Your task to perform on an android device: Go to wifi settings Image 0: 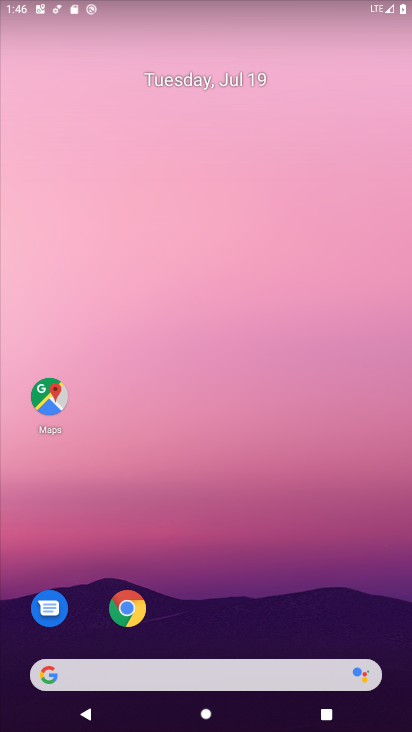
Step 0: drag from (253, 593) to (312, 157)
Your task to perform on an android device: Go to wifi settings Image 1: 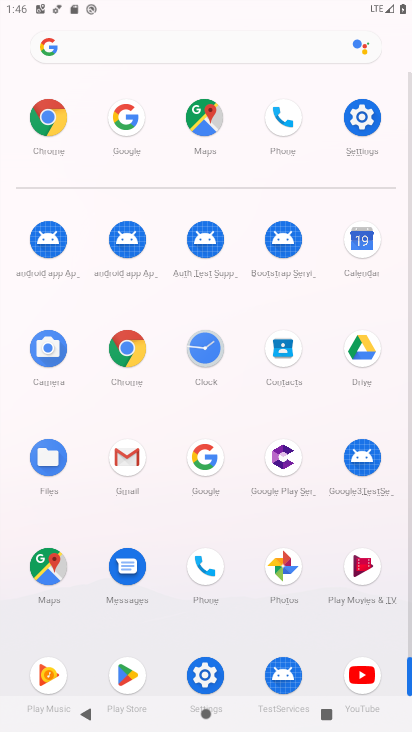
Step 1: click (363, 136)
Your task to perform on an android device: Go to wifi settings Image 2: 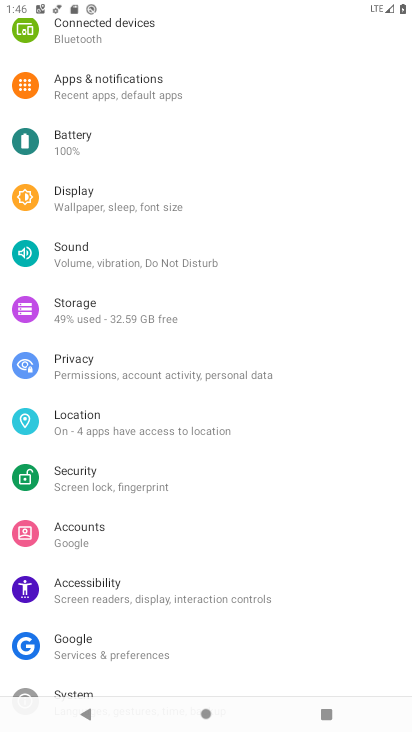
Step 2: drag from (191, 99) to (128, 556)
Your task to perform on an android device: Go to wifi settings Image 3: 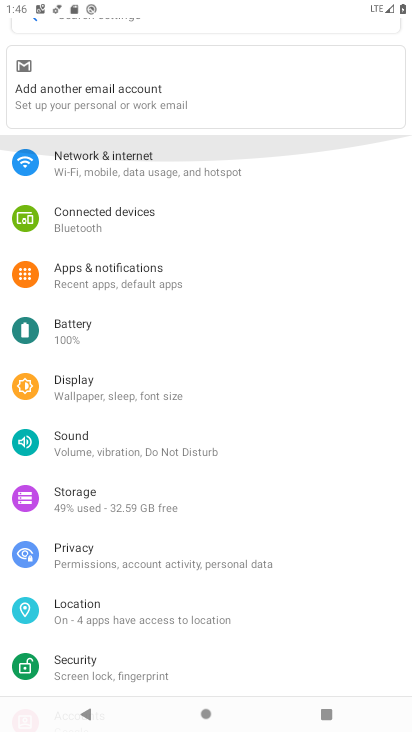
Step 3: click (158, 201)
Your task to perform on an android device: Go to wifi settings Image 4: 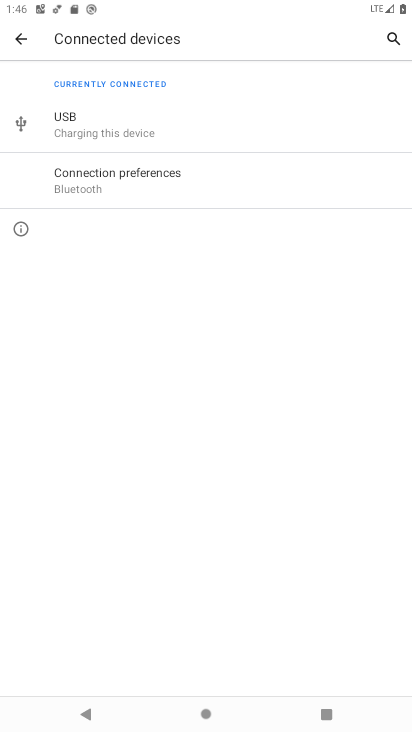
Step 4: press back button
Your task to perform on an android device: Go to wifi settings Image 5: 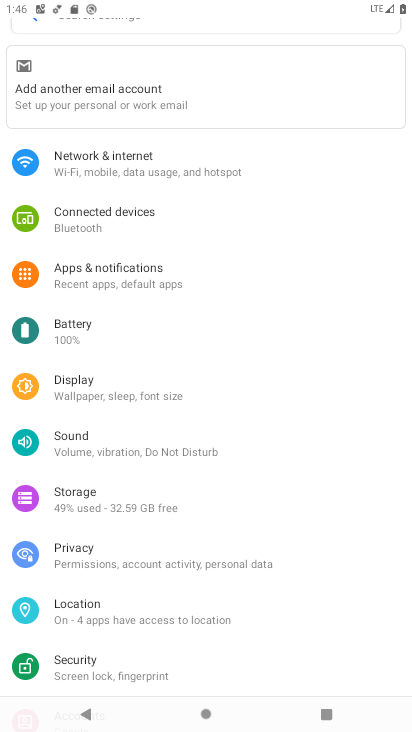
Step 5: click (183, 168)
Your task to perform on an android device: Go to wifi settings Image 6: 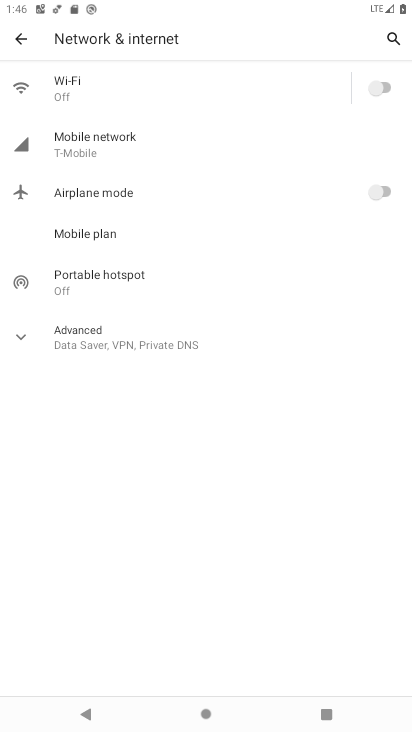
Step 6: click (167, 83)
Your task to perform on an android device: Go to wifi settings Image 7: 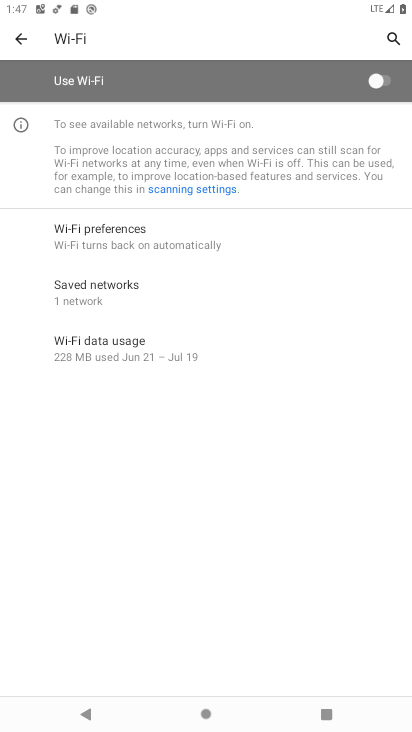
Step 7: task complete